Your task to perform on an android device: choose inbox layout in the gmail app Image 0: 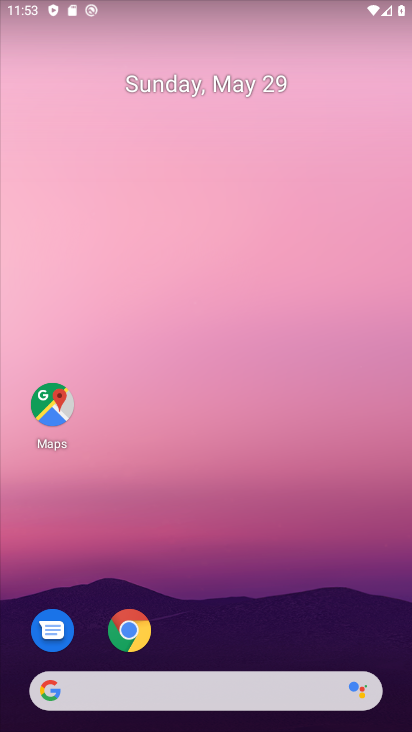
Step 0: drag from (265, 525) to (223, 189)
Your task to perform on an android device: choose inbox layout in the gmail app Image 1: 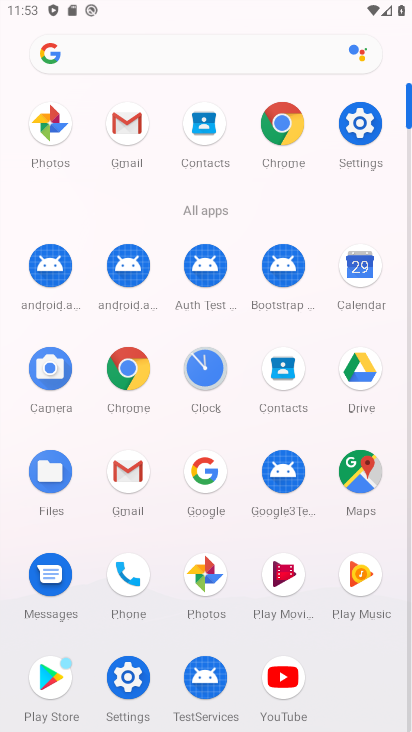
Step 1: click (132, 467)
Your task to perform on an android device: choose inbox layout in the gmail app Image 2: 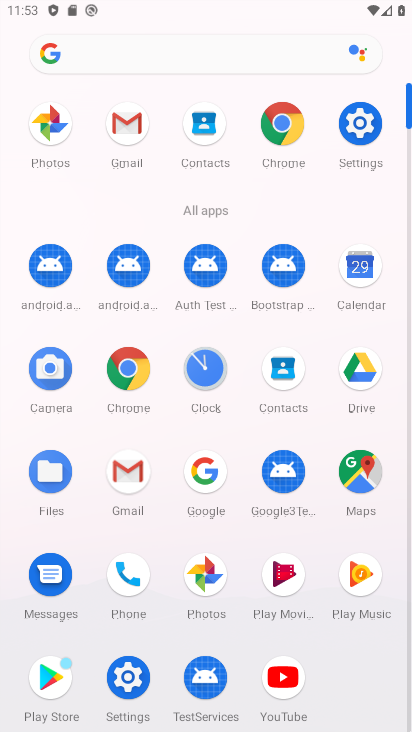
Step 2: click (129, 468)
Your task to perform on an android device: choose inbox layout in the gmail app Image 3: 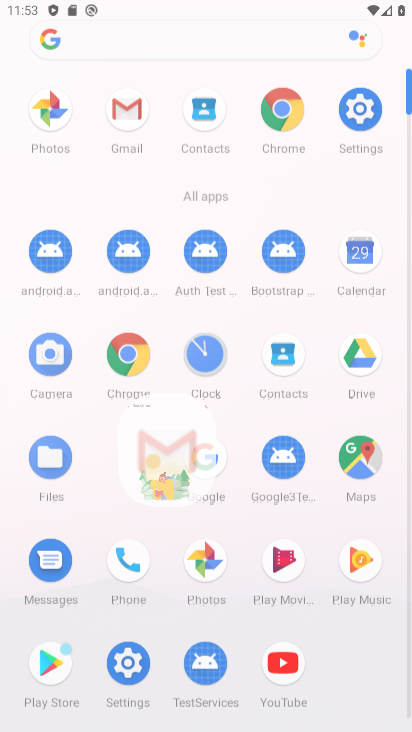
Step 3: click (129, 468)
Your task to perform on an android device: choose inbox layout in the gmail app Image 4: 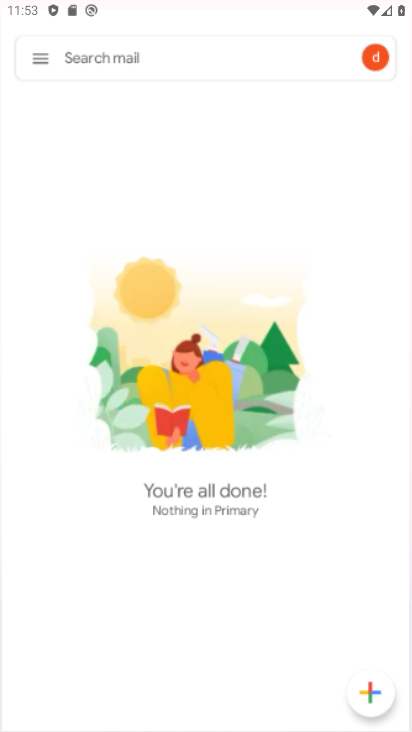
Step 4: click (129, 468)
Your task to perform on an android device: choose inbox layout in the gmail app Image 5: 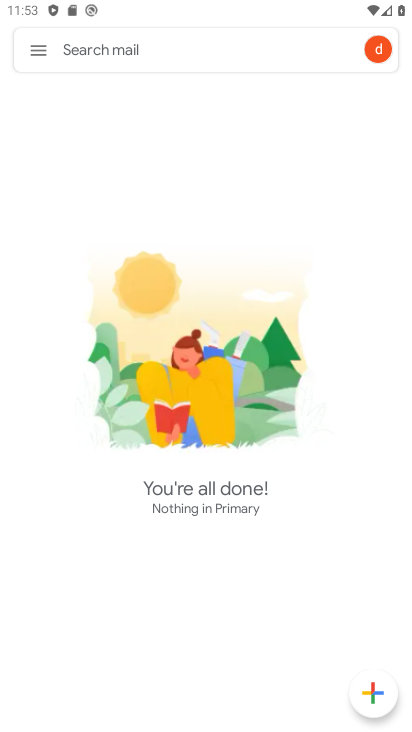
Step 5: click (33, 44)
Your task to perform on an android device: choose inbox layout in the gmail app Image 6: 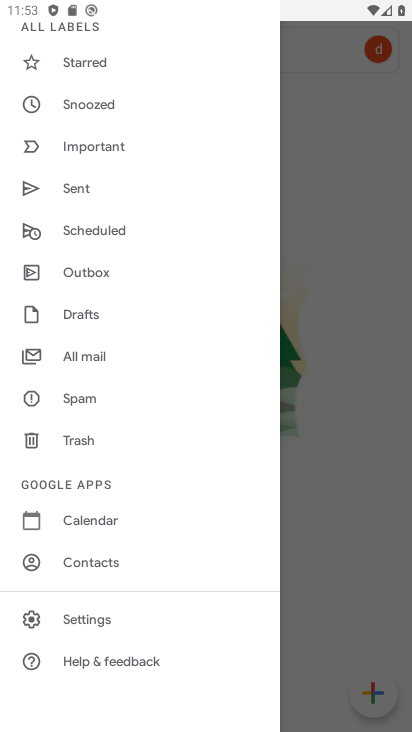
Step 6: click (81, 613)
Your task to perform on an android device: choose inbox layout in the gmail app Image 7: 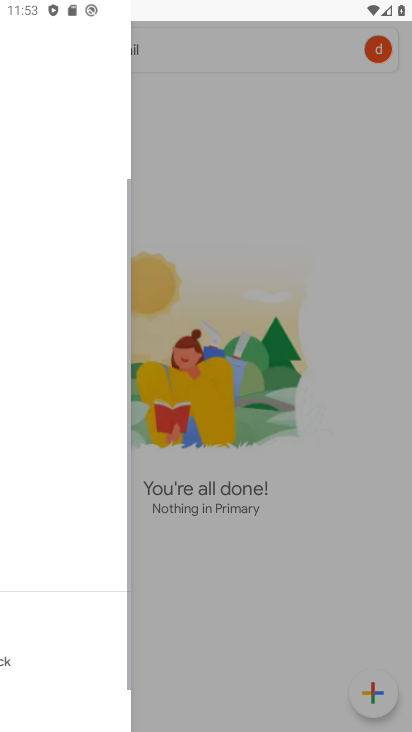
Step 7: click (86, 610)
Your task to perform on an android device: choose inbox layout in the gmail app Image 8: 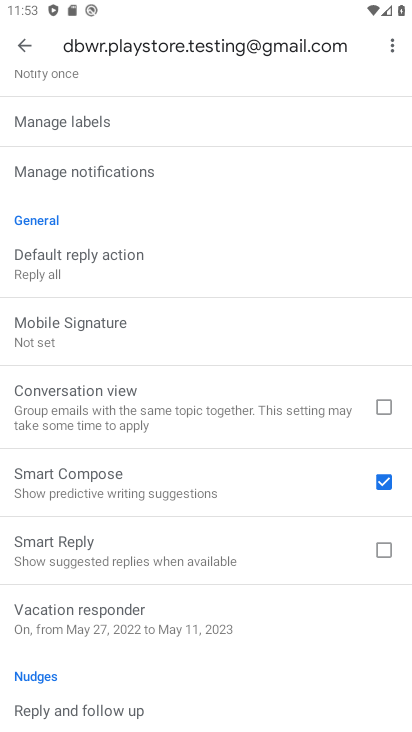
Step 8: drag from (81, 452) to (85, 505)
Your task to perform on an android device: choose inbox layout in the gmail app Image 9: 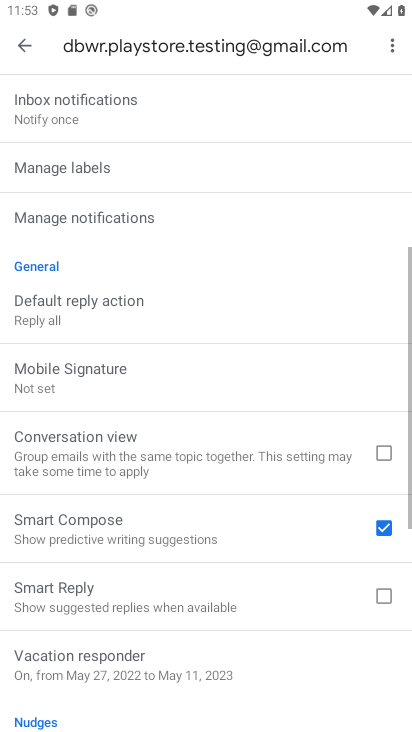
Step 9: drag from (108, 238) to (126, 562)
Your task to perform on an android device: choose inbox layout in the gmail app Image 10: 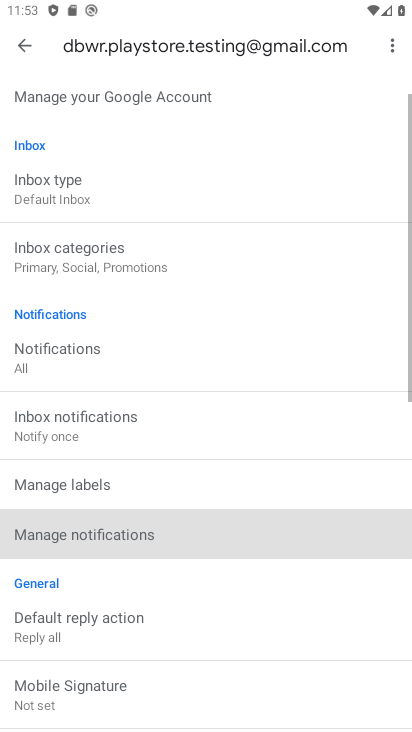
Step 10: drag from (137, 358) to (151, 577)
Your task to perform on an android device: choose inbox layout in the gmail app Image 11: 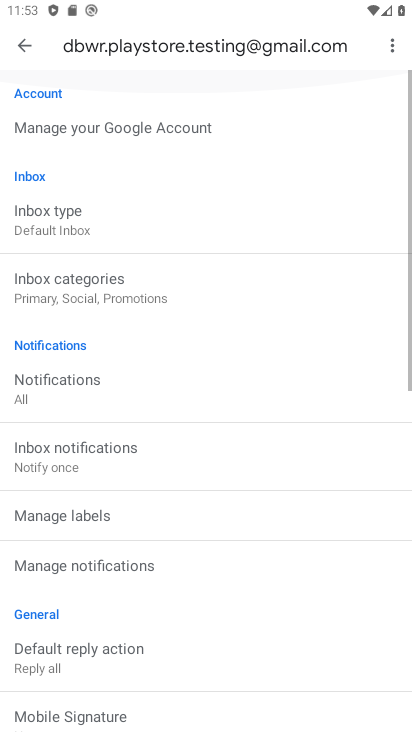
Step 11: drag from (191, 433) to (199, 531)
Your task to perform on an android device: choose inbox layout in the gmail app Image 12: 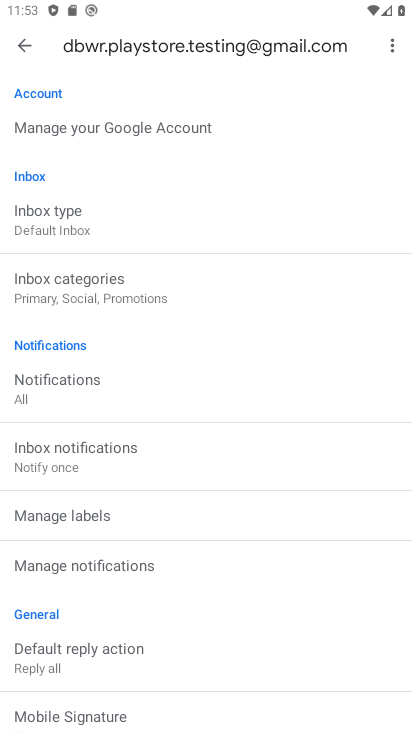
Step 12: click (34, 218)
Your task to perform on an android device: choose inbox layout in the gmail app Image 13: 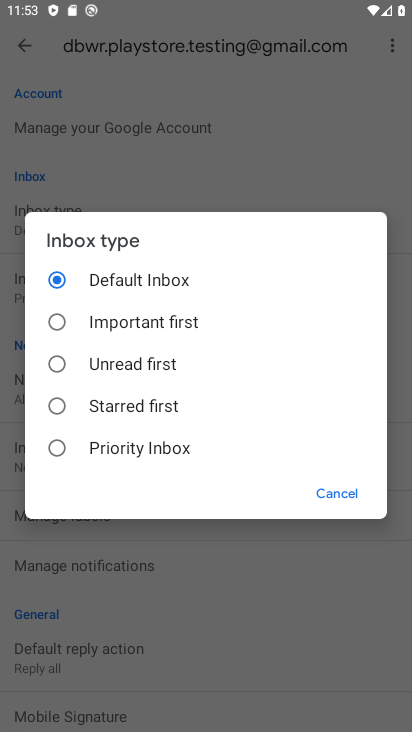
Step 13: click (51, 278)
Your task to perform on an android device: choose inbox layout in the gmail app Image 14: 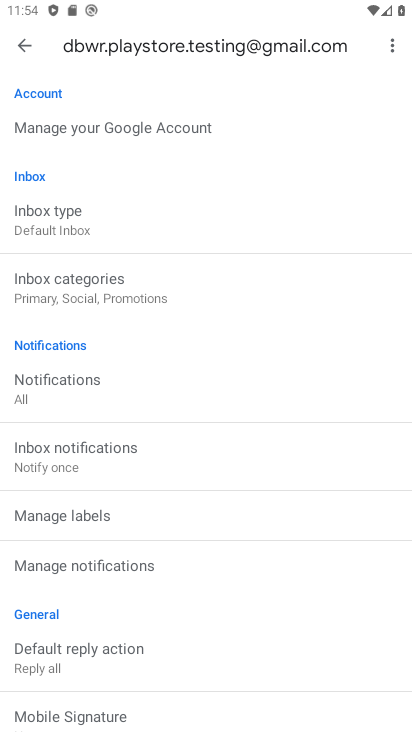
Step 14: task complete